Your task to perform on an android device: turn on improve location accuracy Image 0: 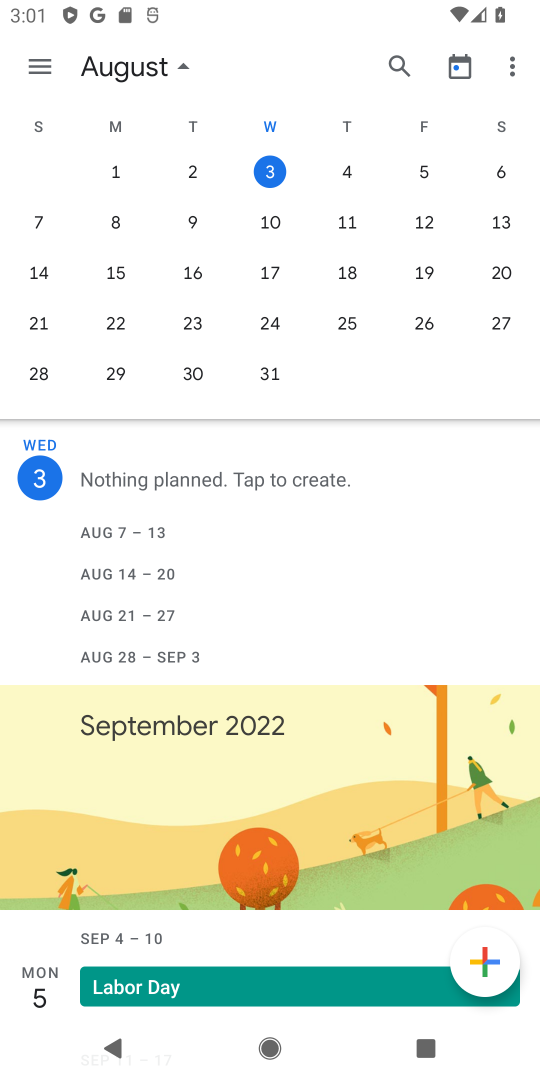
Step 0: press home button
Your task to perform on an android device: turn on improve location accuracy Image 1: 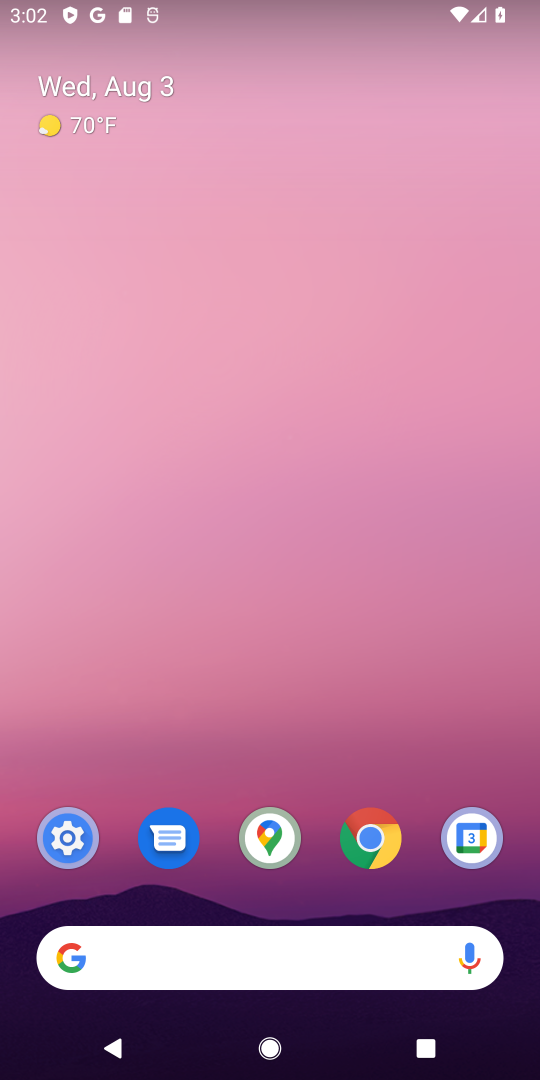
Step 1: click (69, 852)
Your task to perform on an android device: turn on improve location accuracy Image 2: 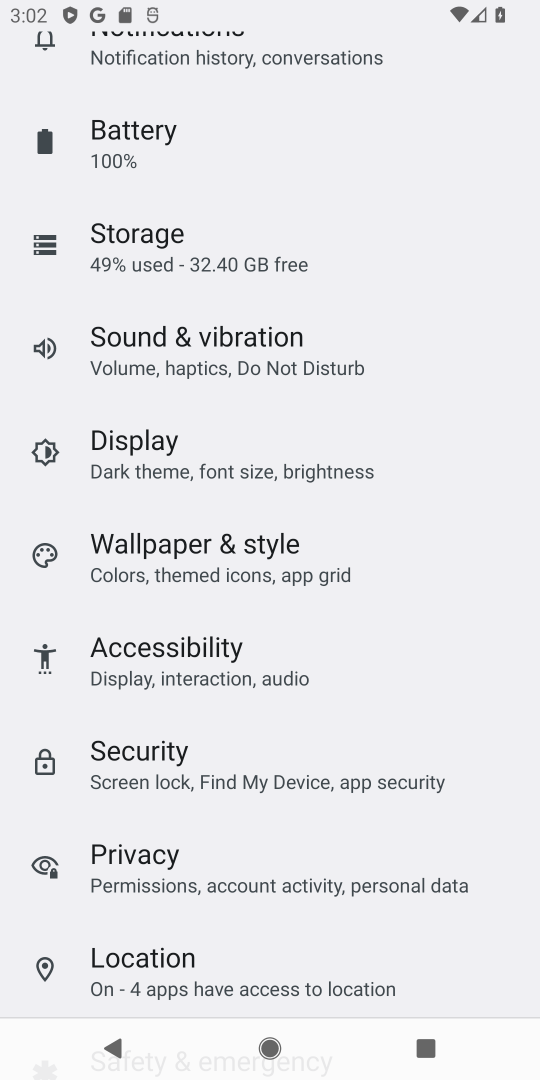
Step 2: click (194, 951)
Your task to perform on an android device: turn on improve location accuracy Image 3: 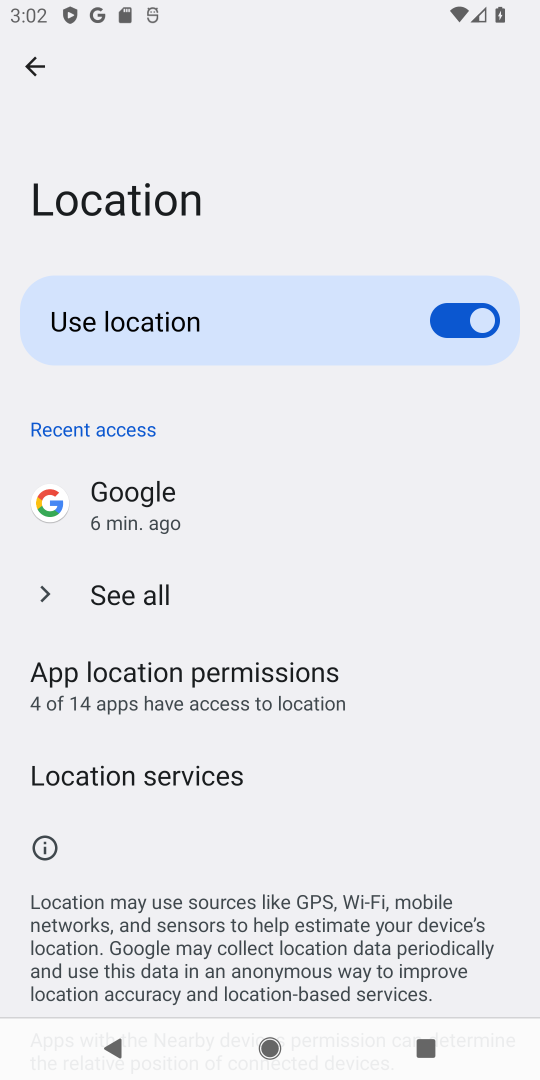
Step 3: click (234, 761)
Your task to perform on an android device: turn on improve location accuracy Image 4: 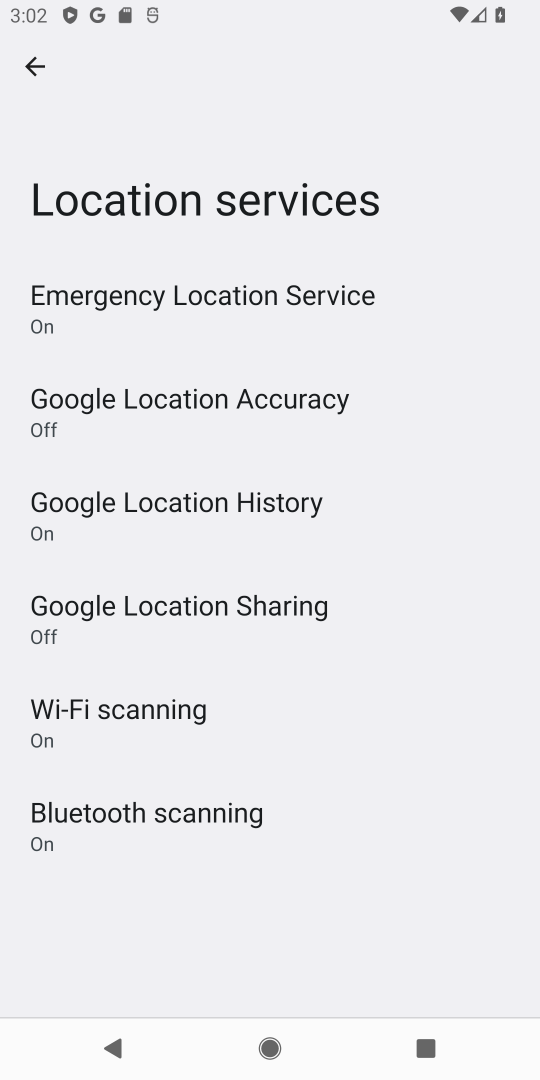
Step 4: click (326, 437)
Your task to perform on an android device: turn on improve location accuracy Image 5: 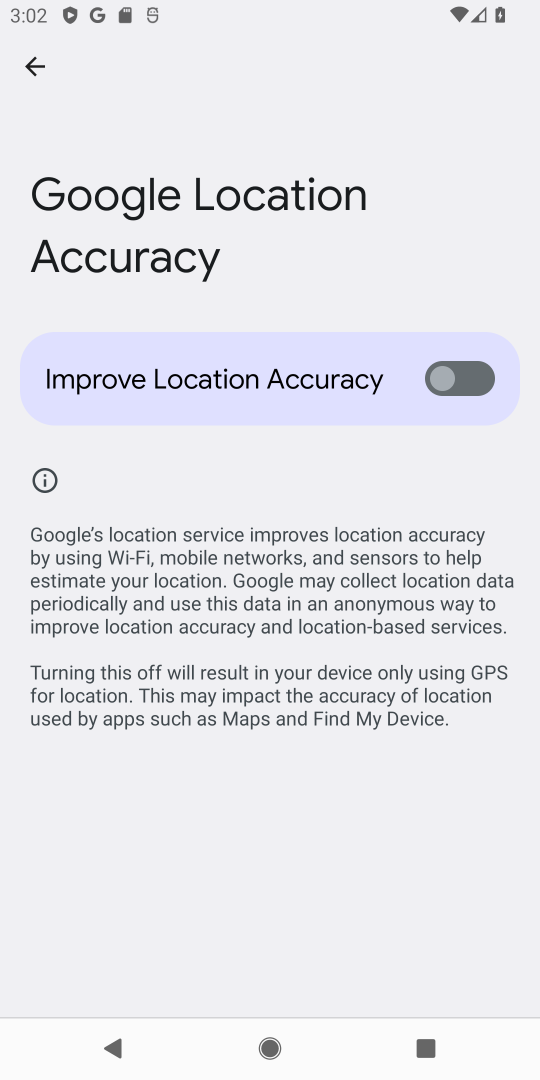
Step 5: click (459, 354)
Your task to perform on an android device: turn on improve location accuracy Image 6: 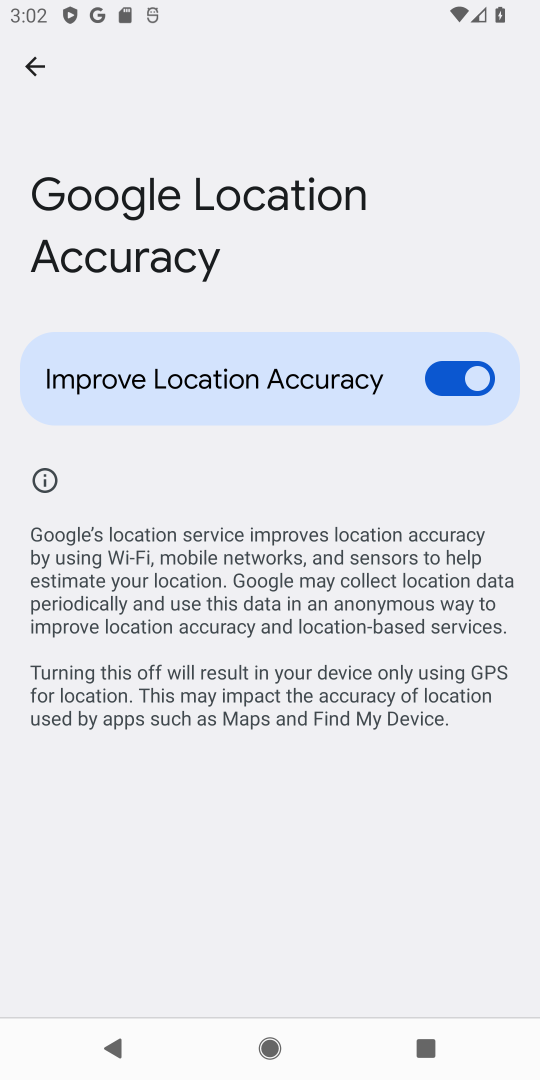
Step 6: task complete